Your task to perform on an android device: check battery use Image 0: 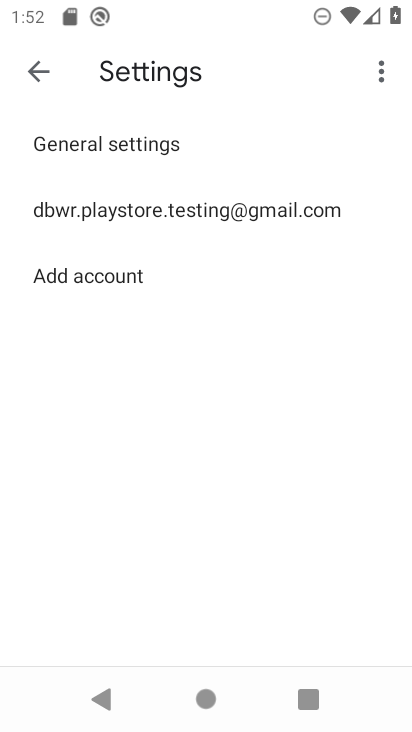
Step 0: press home button
Your task to perform on an android device: check battery use Image 1: 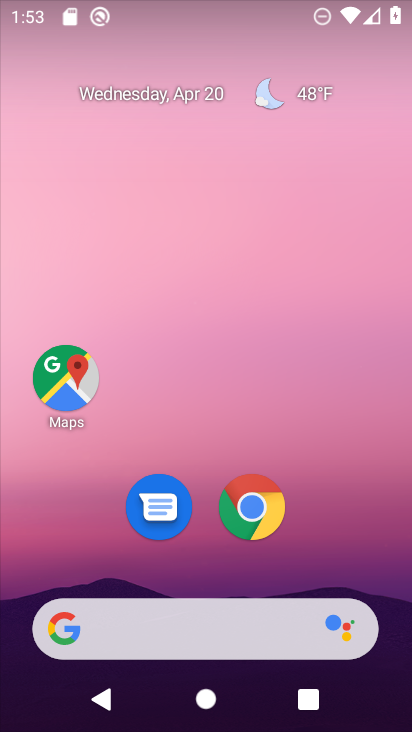
Step 1: drag from (200, 726) to (160, 68)
Your task to perform on an android device: check battery use Image 2: 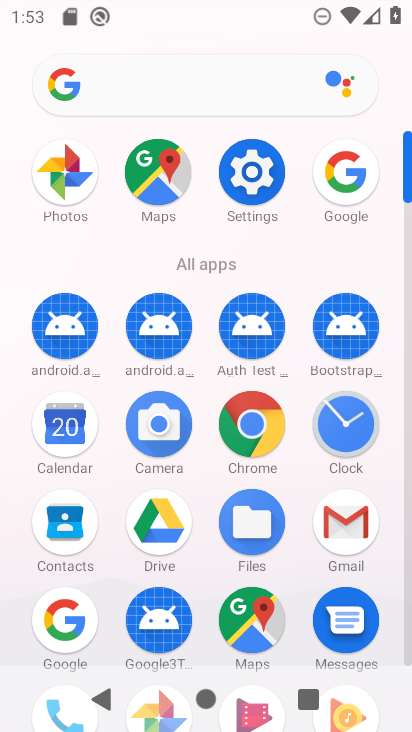
Step 2: click (256, 169)
Your task to perform on an android device: check battery use Image 3: 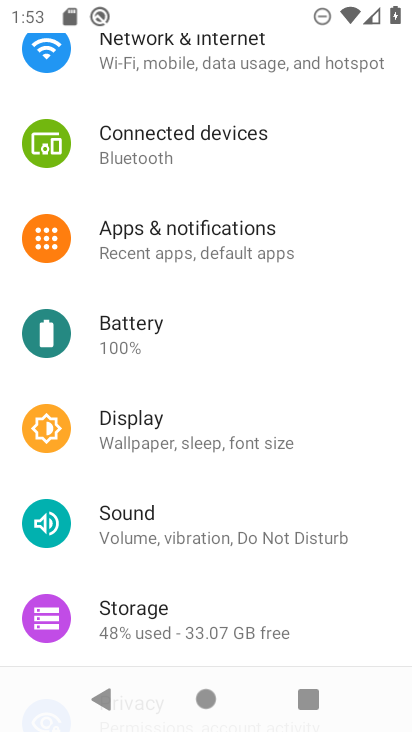
Step 3: click (118, 323)
Your task to perform on an android device: check battery use Image 4: 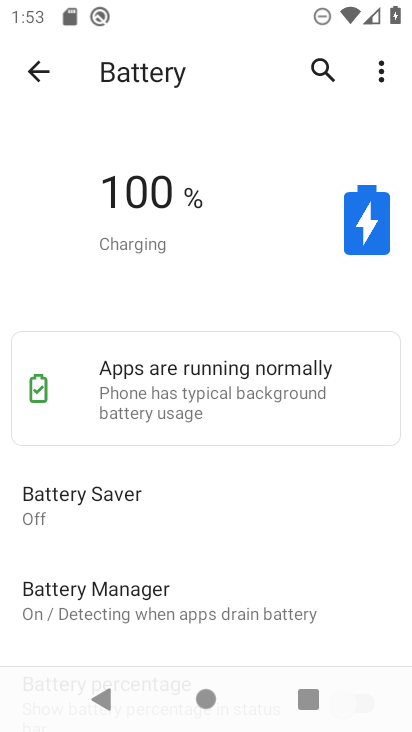
Step 4: click (380, 76)
Your task to perform on an android device: check battery use Image 5: 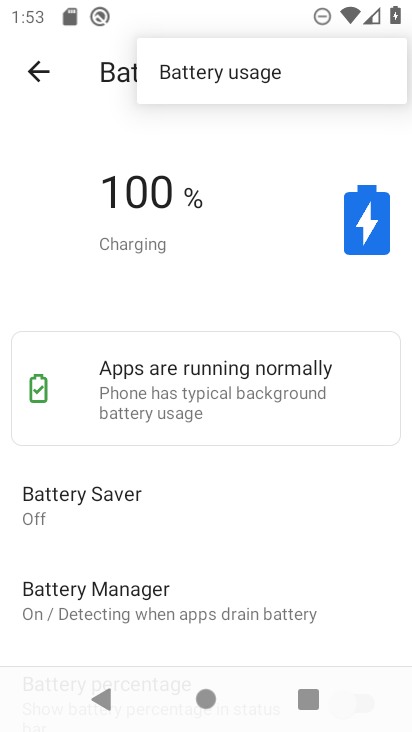
Step 5: click (232, 68)
Your task to perform on an android device: check battery use Image 6: 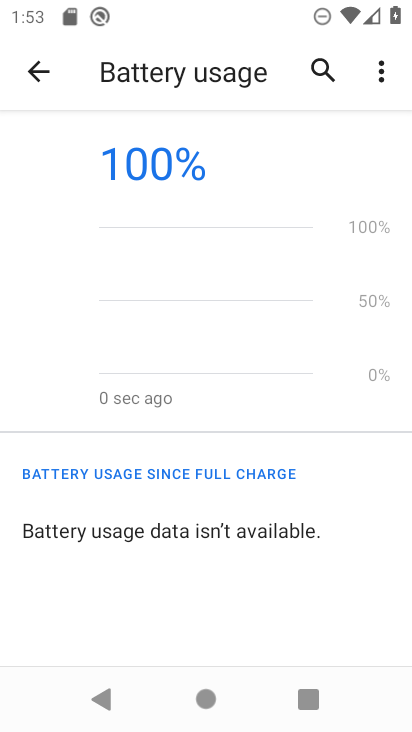
Step 6: task complete